Your task to perform on an android device: What's the weather? Image 0: 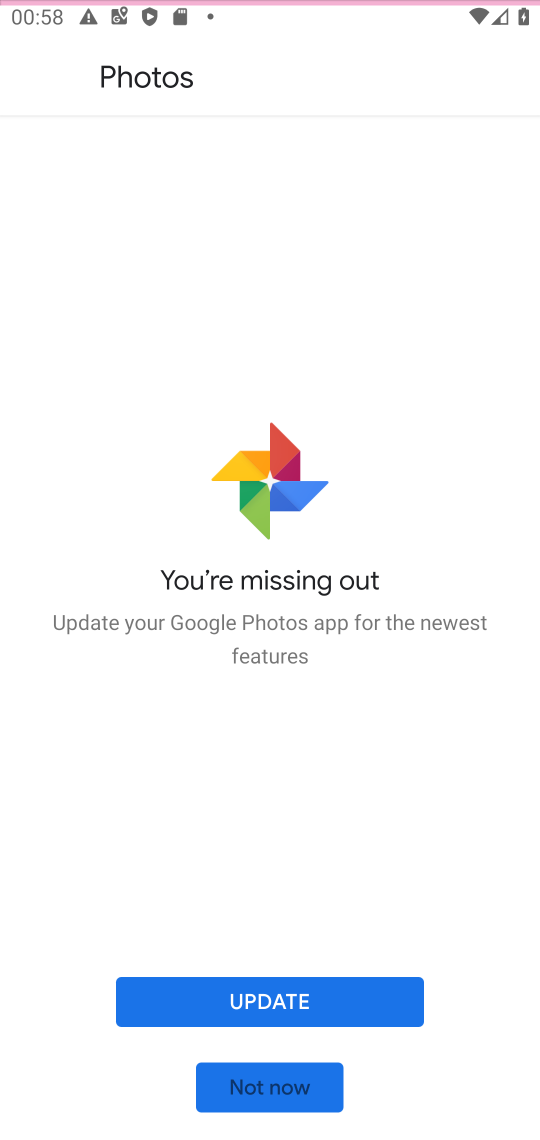
Step 0: press home button
Your task to perform on an android device: What's the weather? Image 1: 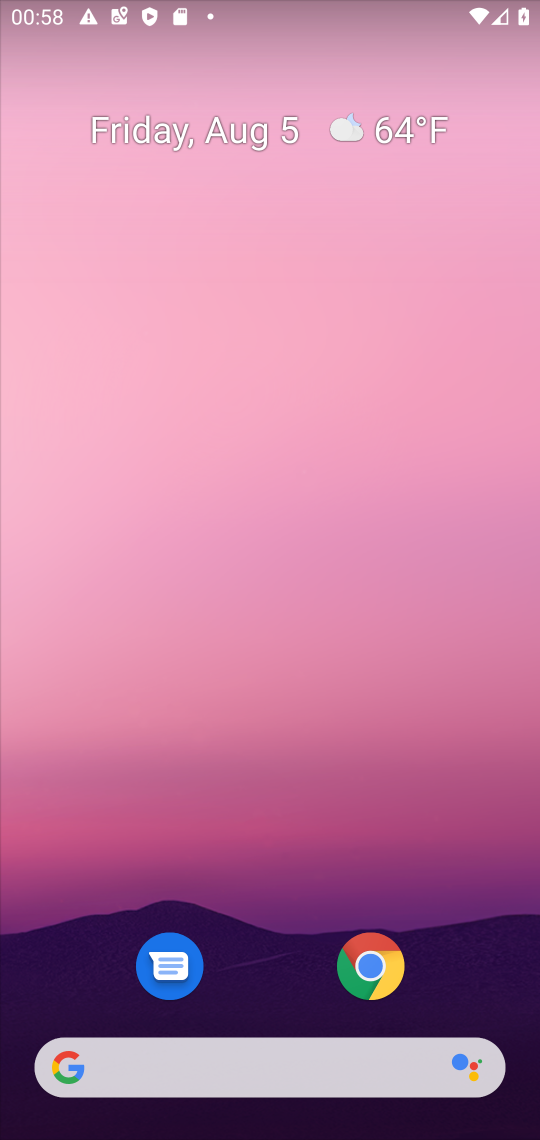
Step 1: click (371, 120)
Your task to perform on an android device: What's the weather? Image 2: 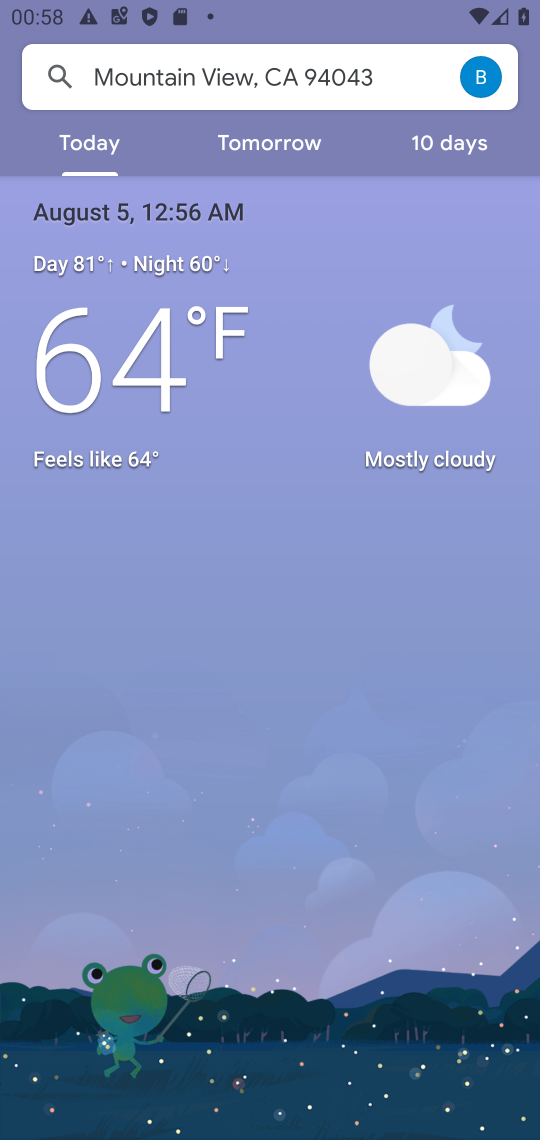
Step 2: task complete